Your task to perform on an android device: change alarm snooze length Image 0: 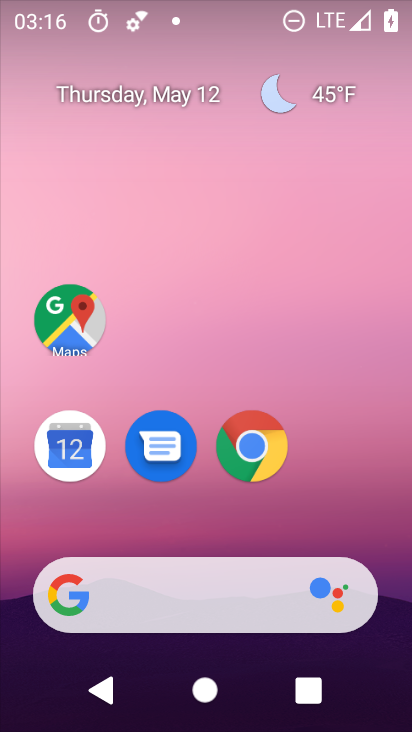
Step 0: drag from (188, 516) to (229, 167)
Your task to perform on an android device: change alarm snooze length Image 1: 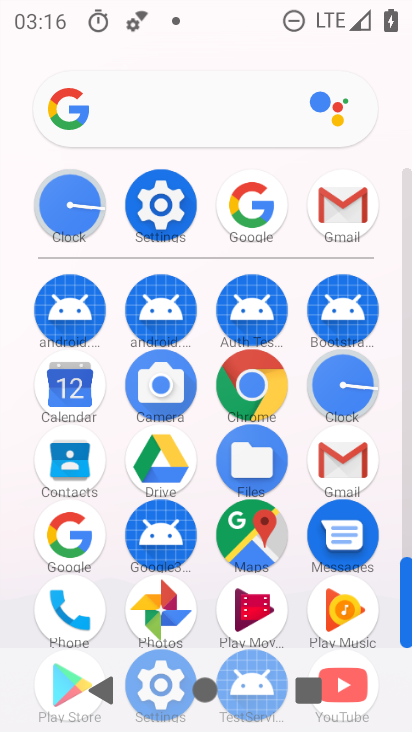
Step 1: click (323, 364)
Your task to perform on an android device: change alarm snooze length Image 2: 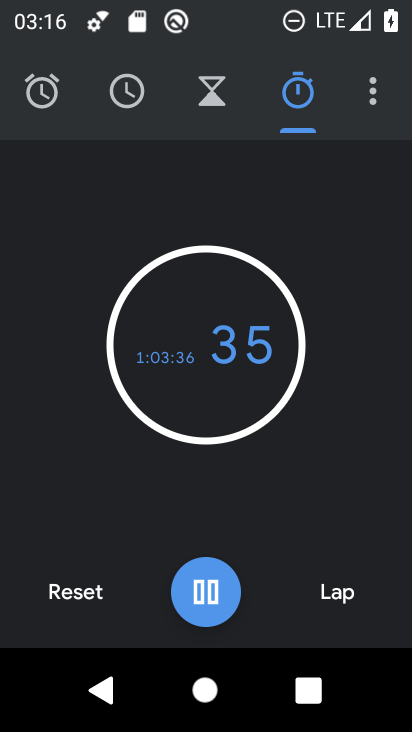
Step 2: click (365, 94)
Your task to perform on an android device: change alarm snooze length Image 3: 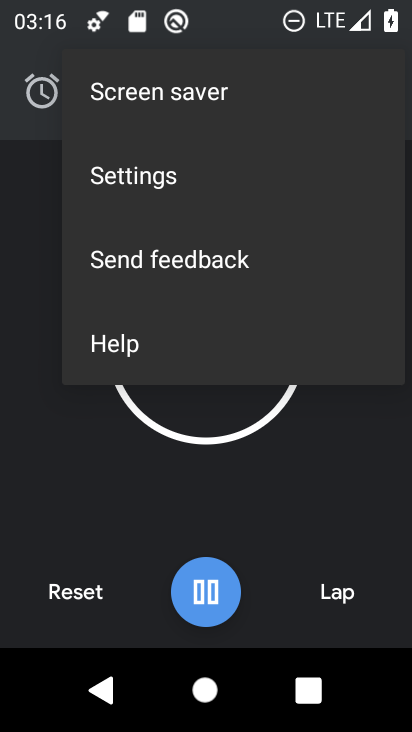
Step 3: click (139, 189)
Your task to perform on an android device: change alarm snooze length Image 4: 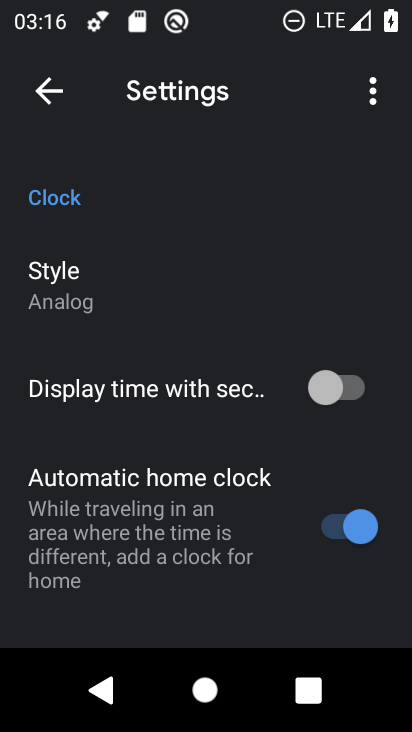
Step 4: drag from (235, 535) to (252, 344)
Your task to perform on an android device: change alarm snooze length Image 5: 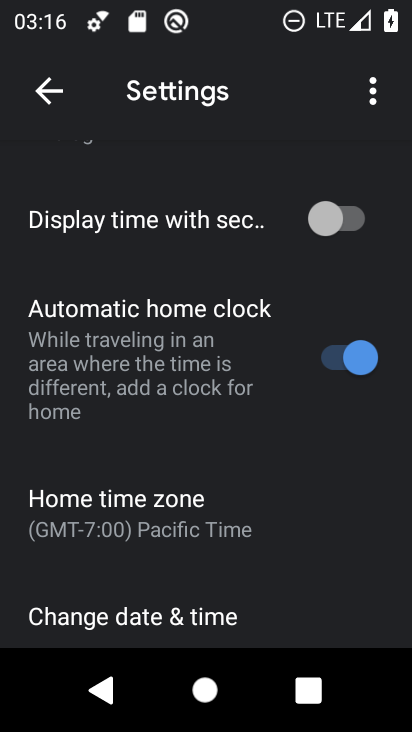
Step 5: drag from (269, 581) to (278, 417)
Your task to perform on an android device: change alarm snooze length Image 6: 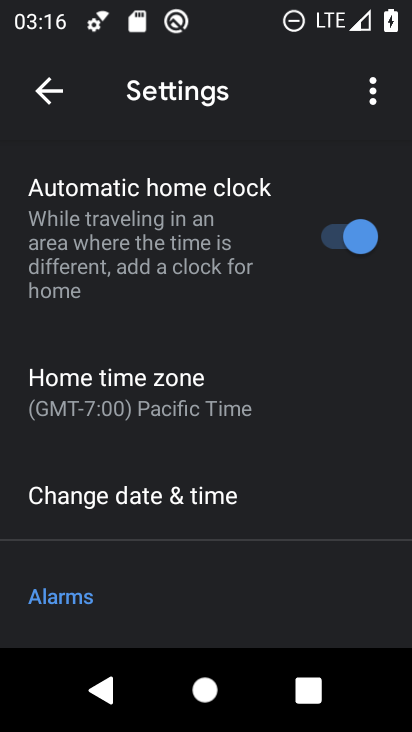
Step 6: drag from (283, 546) to (278, 427)
Your task to perform on an android device: change alarm snooze length Image 7: 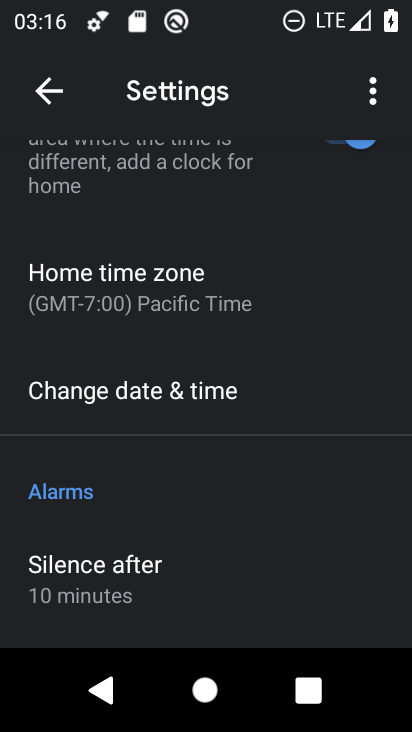
Step 7: drag from (268, 505) to (310, 287)
Your task to perform on an android device: change alarm snooze length Image 8: 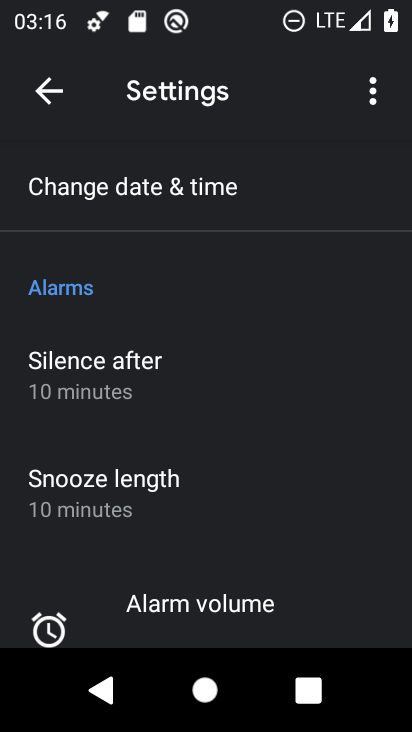
Step 8: drag from (277, 510) to (294, 341)
Your task to perform on an android device: change alarm snooze length Image 9: 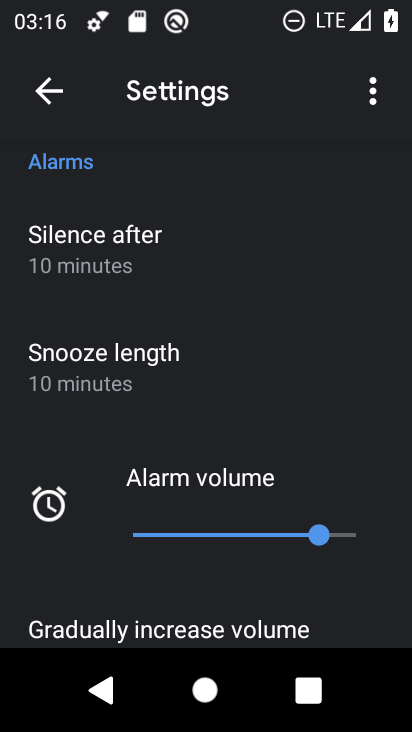
Step 9: drag from (241, 542) to (276, 397)
Your task to perform on an android device: change alarm snooze length Image 10: 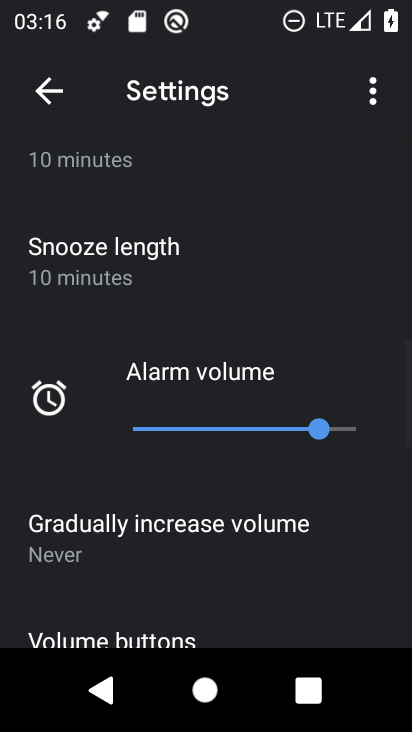
Step 10: drag from (263, 559) to (286, 366)
Your task to perform on an android device: change alarm snooze length Image 11: 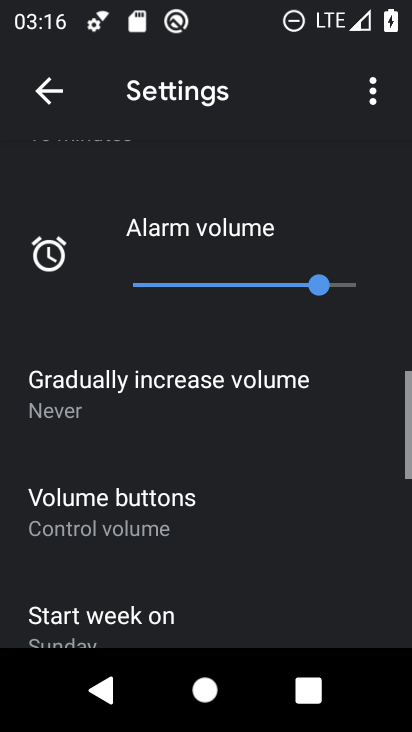
Step 11: drag from (250, 554) to (273, 430)
Your task to perform on an android device: change alarm snooze length Image 12: 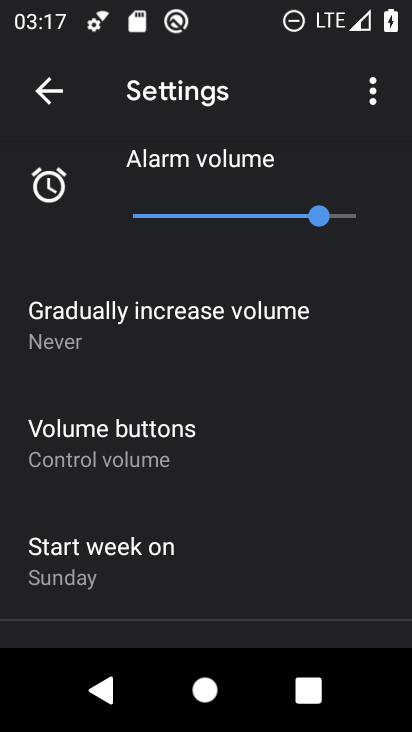
Step 12: drag from (237, 530) to (274, 275)
Your task to perform on an android device: change alarm snooze length Image 13: 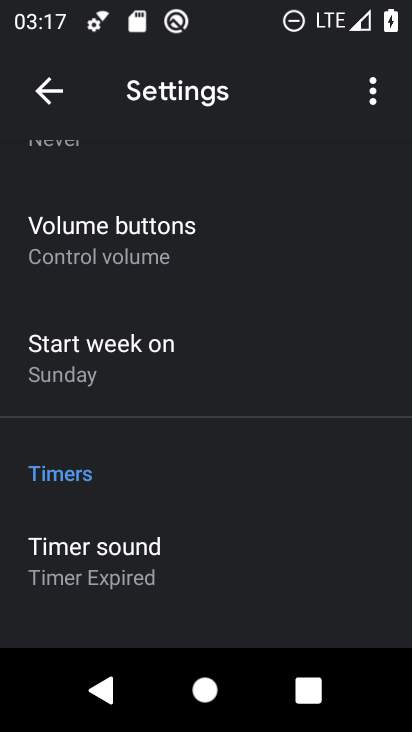
Step 13: drag from (264, 592) to (271, 396)
Your task to perform on an android device: change alarm snooze length Image 14: 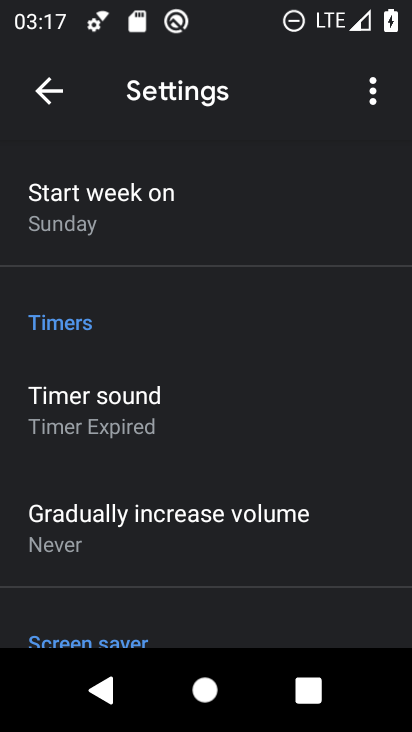
Step 14: drag from (265, 503) to (291, 220)
Your task to perform on an android device: change alarm snooze length Image 15: 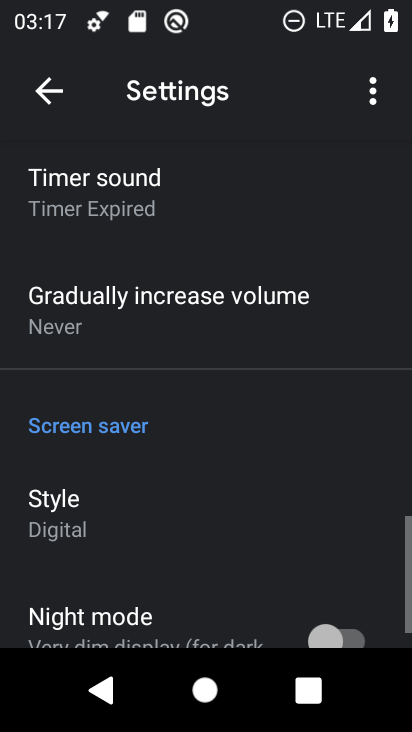
Step 15: drag from (249, 521) to (301, 311)
Your task to perform on an android device: change alarm snooze length Image 16: 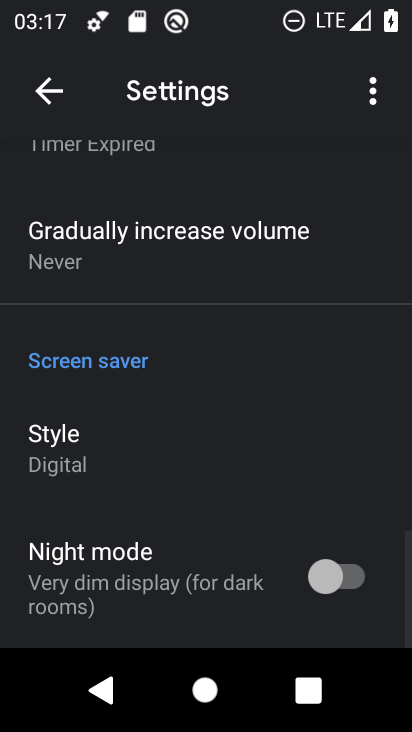
Step 16: drag from (308, 316) to (308, 566)
Your task to perform on an android device: change alarm snooze length Image 17: 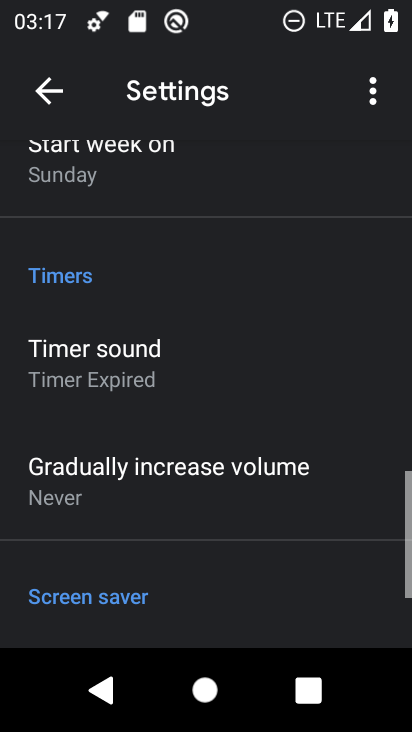
Step 17: drag from (289, 337) to (289, 473)
Your task to perform on an android device: change alarm snooze length Image 18: 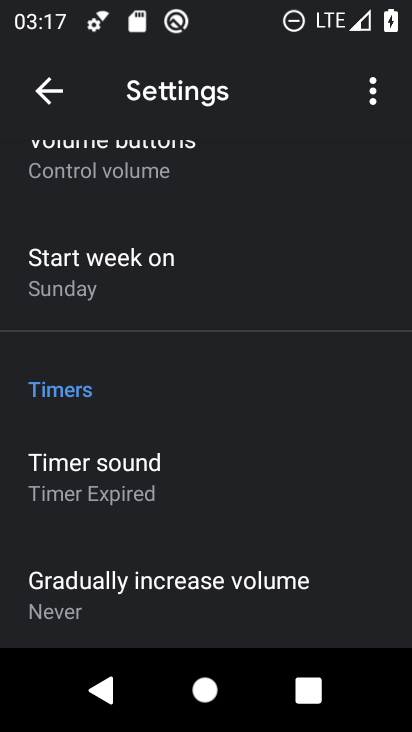
Step 18: drag from (278, 313) to (278, 500)
Your task to perform on an android device: change alarm snooze length Image 19: 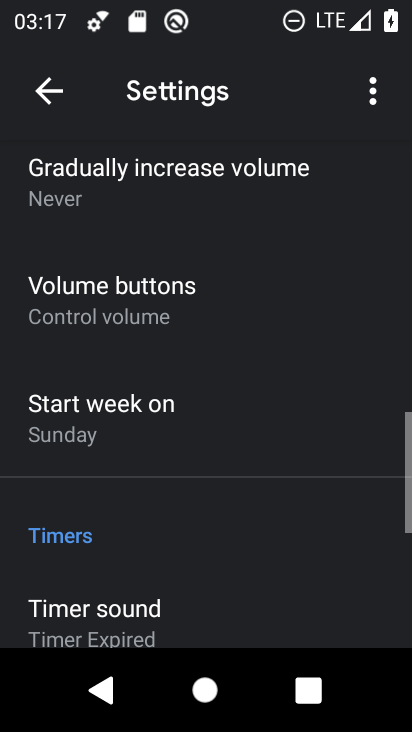
Step 19: drag from (261, 260) to (261, 484)
Your task to perform on an android device: change alarm snooze length Image 20: 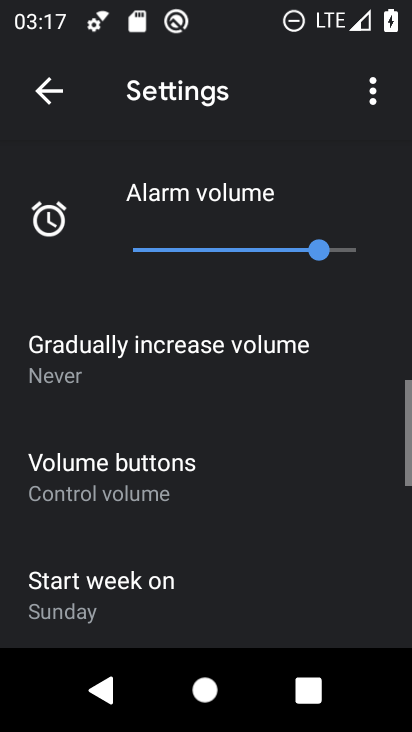
Step 20: drag from (270, 266) to (270, 464)
Your task to perform on an android device: change alarm snooze length Image 21: 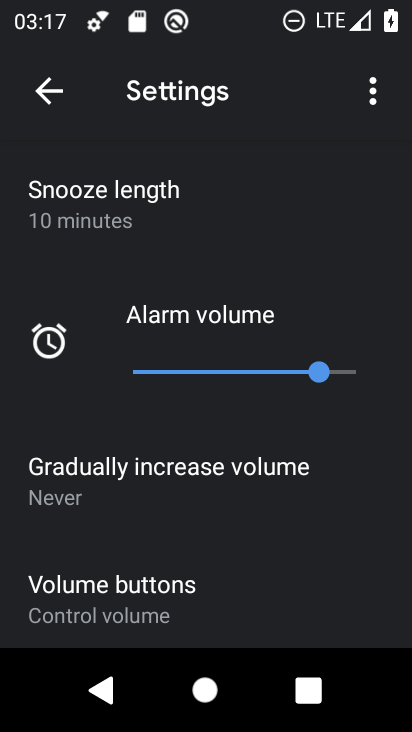
Step 21: drag from (257, 264) to (267, 403)
Your task to perform on an android device: change alarm snooze length Image 22: 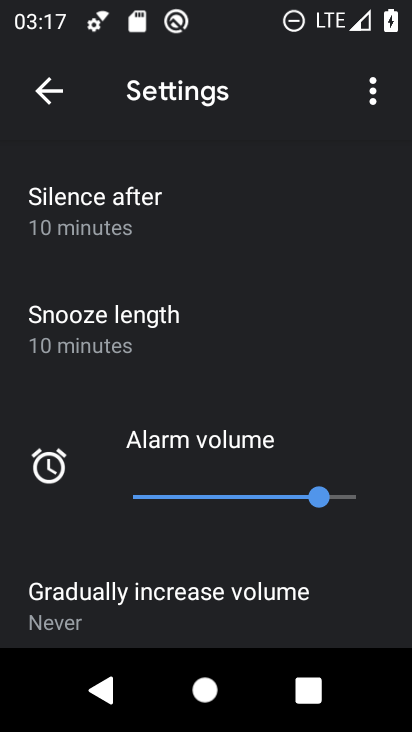
Step 22: click (212, 344)
Your task to perform on an android device: change alarm snooze length Image 23: 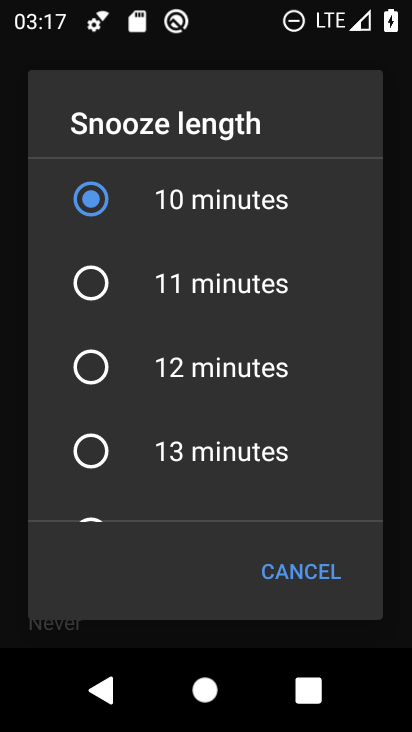
Step 23: click (200, 448)
Your task to perform on an android device: change alarm snooze length Image 24: 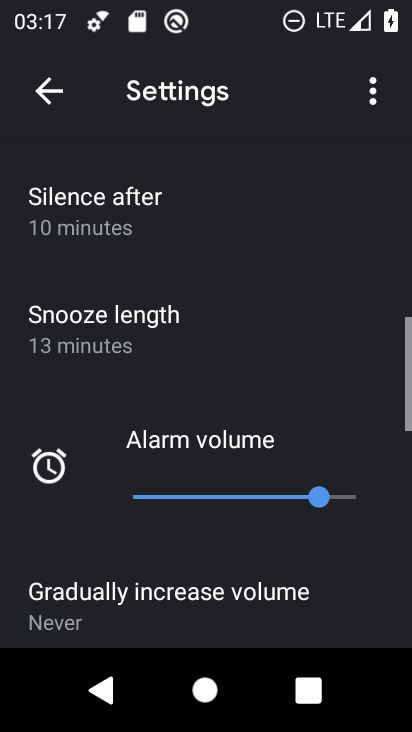
Step 24: task complete